Your task to perform on an android device: Open calendar and show me the first week of next month Image 0: 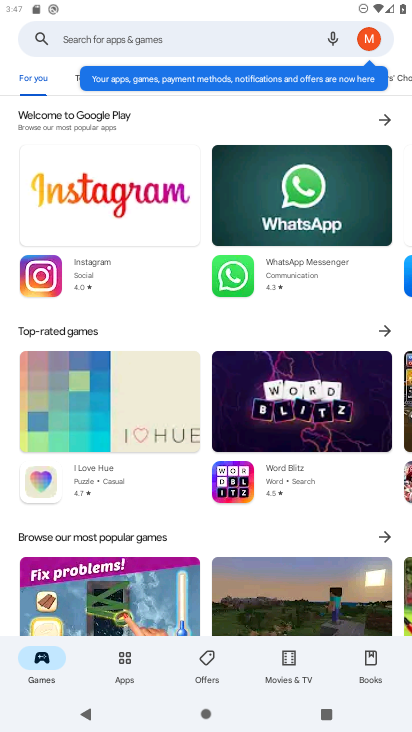
Step 0: press home button
Your task to perform on an android device: Open calendar and show me the first week of next month Image 1: 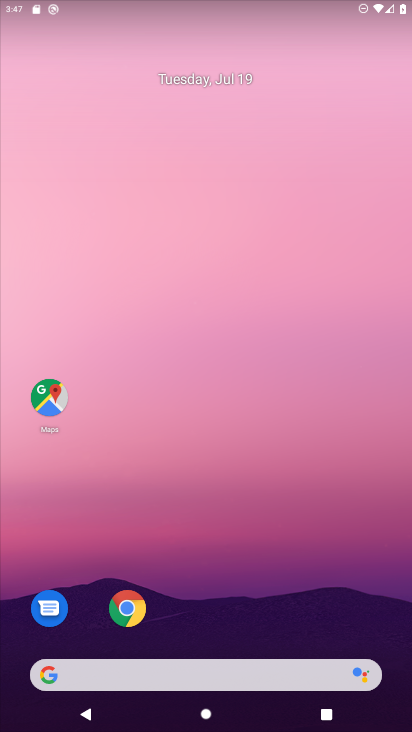
Step 1: drag from (306, 616) to (269, 126)
Your task to perform on an android device: Open calendar and show me the first week of next month Image 2: 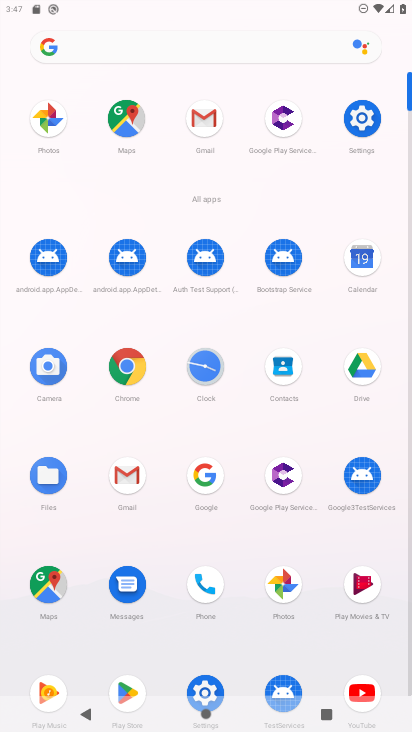
Step 2: click (359, 259)
Your task to perform on an android device: Open calendar and show me the first week of next month Image 3: 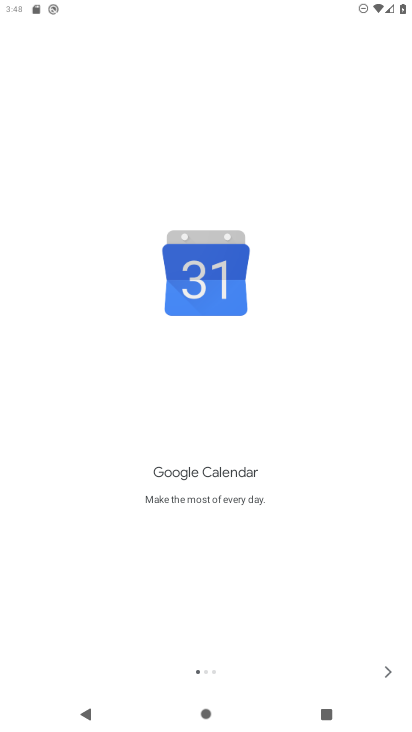
Step 3: click (381, 669)
Your task to perform on an android device: Open calendar and show me the first week of next month Image 4: 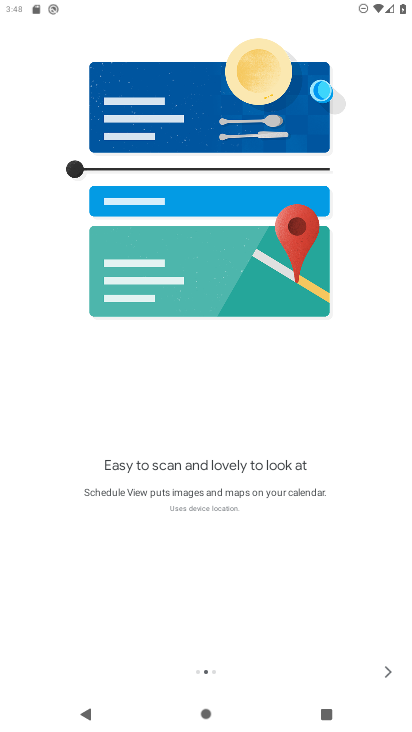
Step 4: click (381, 665)
Your task to perform on an android device: Open calendar and show me the first week of next month Image 5: 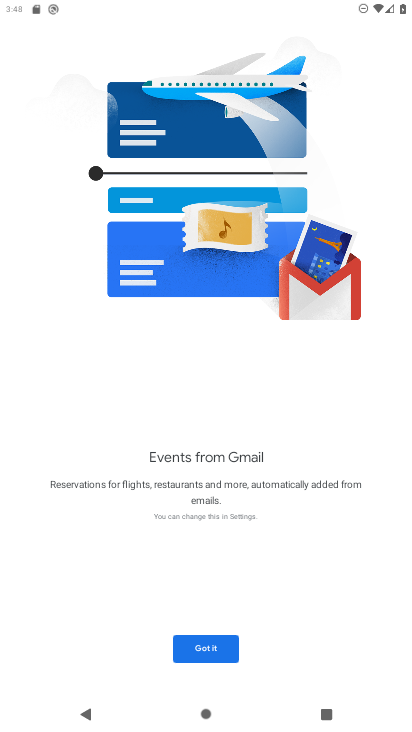
Step 5: click (228, 642)
Your task to perform on an android device: Open calendar and show me the first week of next month Image 6: 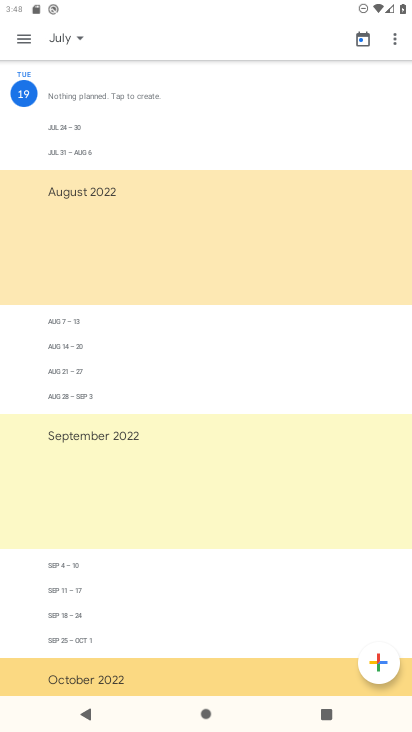
Step 6: click (75, 39)
Your task to perform on an android device: Open calendar and show me the first week of next month Image 7: 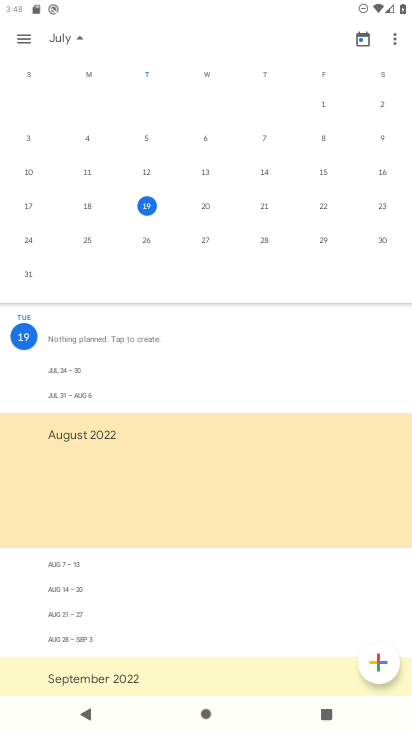
Step 7: drag from (392, 217) to (73, 187)
Your task to perform on an android device: Open calendar and show me the first week of next month Image 8: 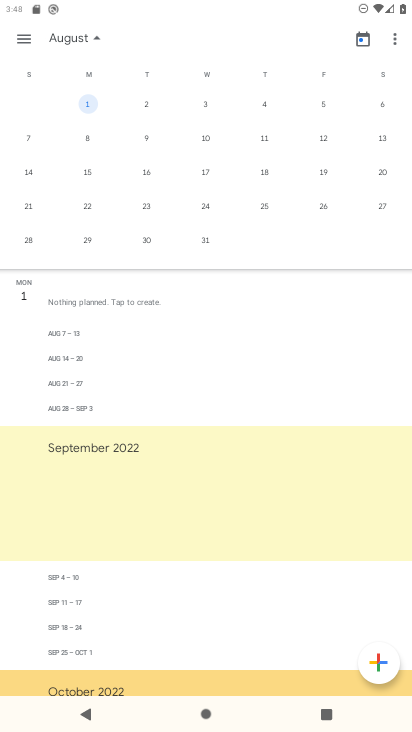
Step 8: click (197, 91)
Your task to perform on an android device: Open calendar and show me the first week of next month Image 9: 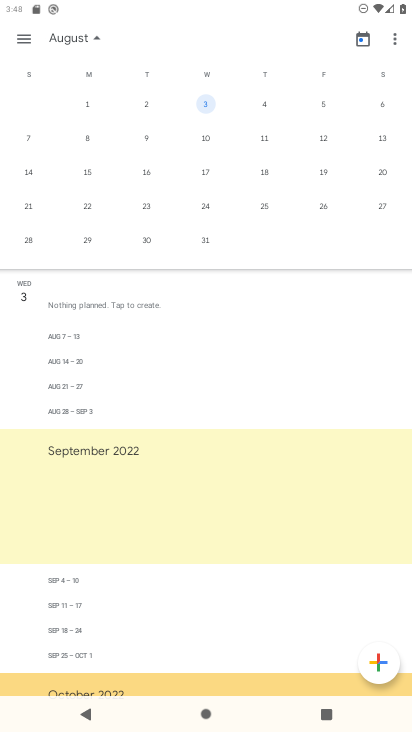
Step 9: click (31, 39)
Your task to perform on an android device: Open calendar and show me the first week of next month Image 10: 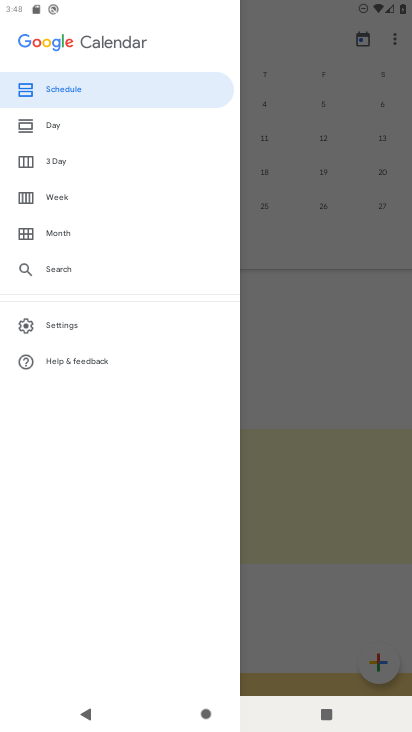
Step 10: click (56, 197)
Your task to perform on an android device: Open calendar and show me the first week of next month Image 11: 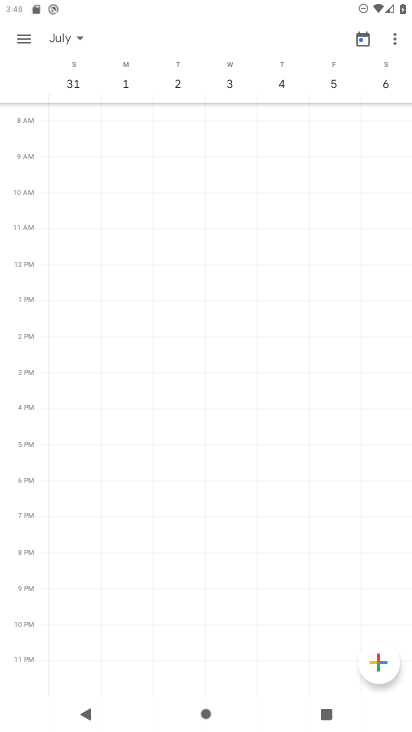
Step 11: task complete